Your task to perform on an android device: set the timer Image 0: 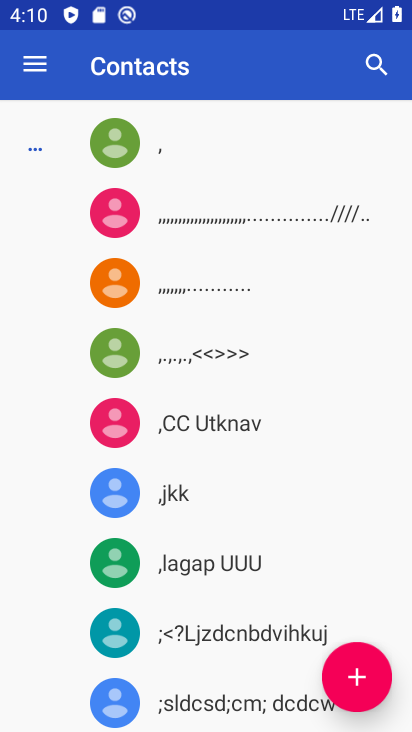
Step 0: press home button
Your task to perform on an android device: set the timer Image 1: 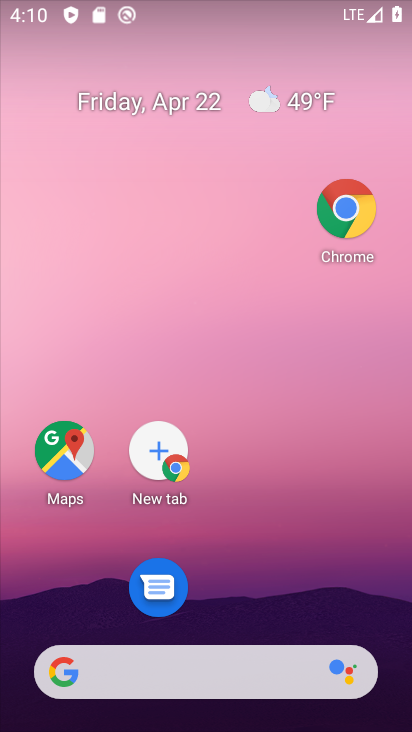
Step 1: drag from (299, 552) to (293, 109)
Your task to perform on an android device: set the timer Image 2: 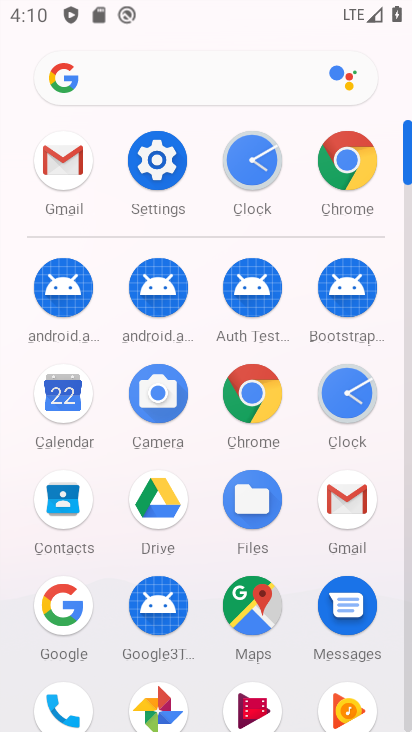
Step 2: click (352, 378)
Your task to perform on an android device: set the timer Image 3: 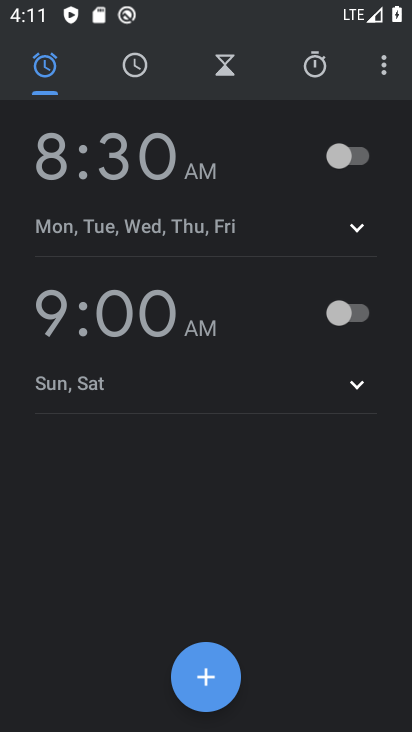
Step 3: click (221, 64)
Your task to perform on an android device: set the timer Image 4: 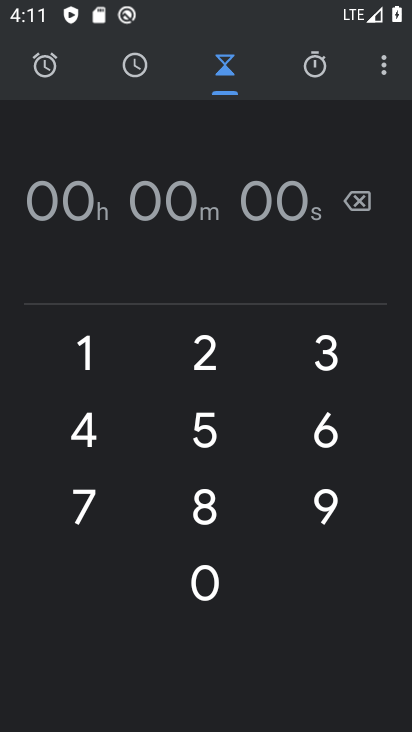
Step 4: click (197, 491)
Your task to perform on an android device: set the timer Image 5: 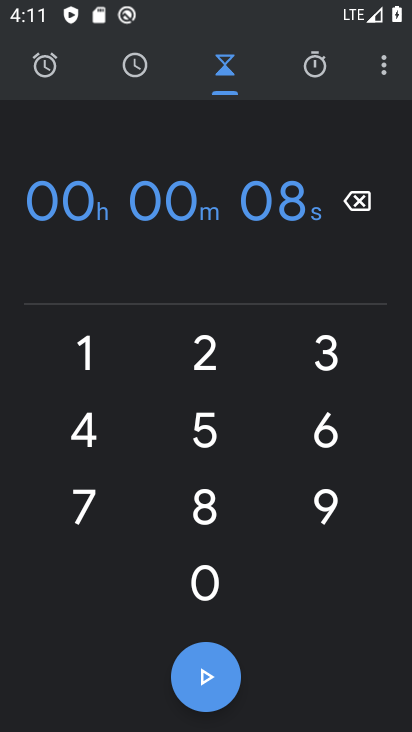
Step 5: task complete